Your task to perform on an android device: clear all cookies in the chrome app Image 0: 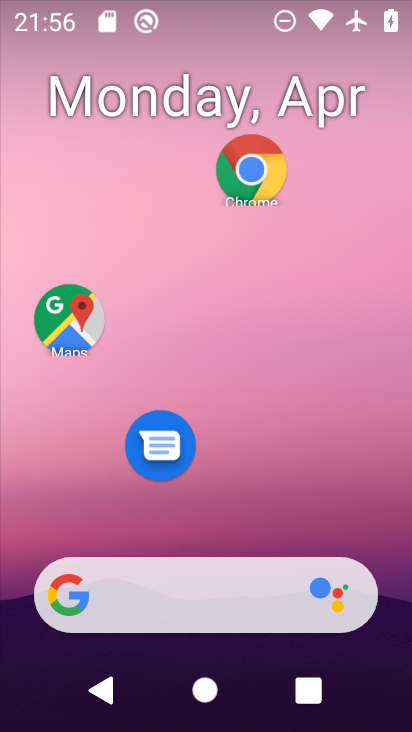
Step 0: click (259, 186)
Your task to perform on an android device: clear all cookies in the chrome app Image 1: 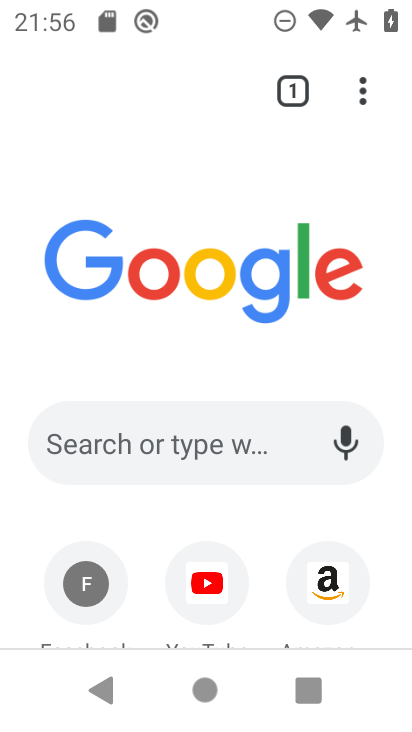
Step 1: click (365, 91)
Your task to perform on an android device: clear all cookies in the chrome app Image 2: 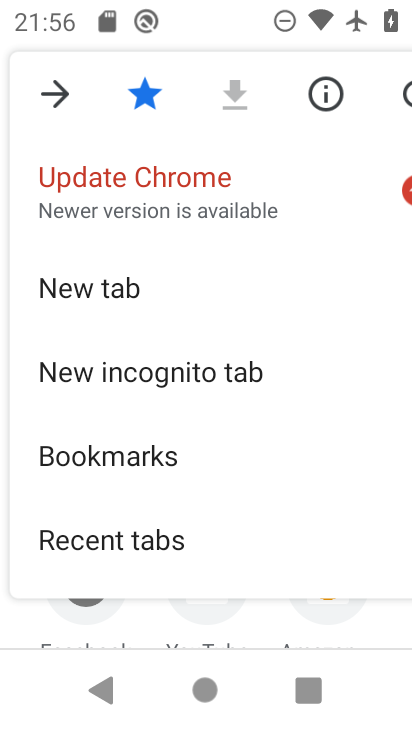
Step 2: drag from (189, 555) to (193, 291)
Your task to perform on an android device: clear all cookies in the chrome app Image 3: 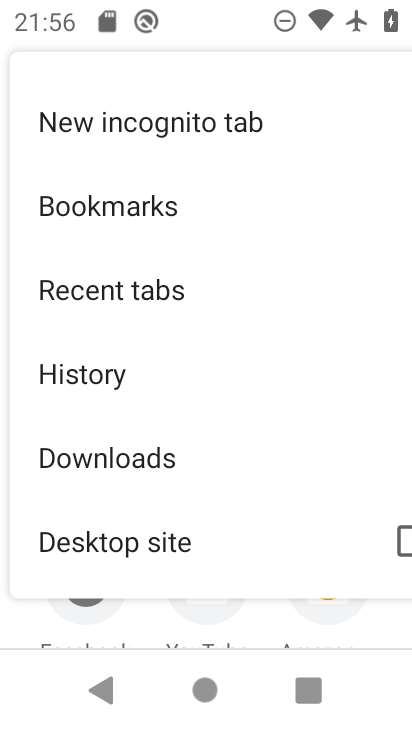
Step 3: drag from (182, 541) to (202, 221)
Your task to perform on an android device: clear all cookies in the chrome app Image 4: 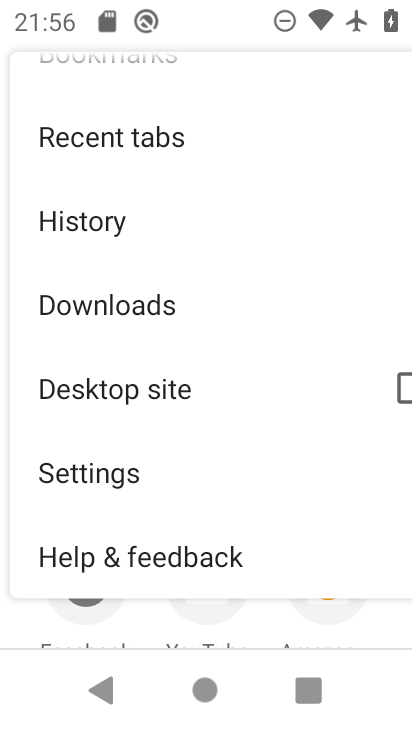
Step 4: click (157, 223)
Your task to perform on an android device: clear all cookies in the chrome app Image 5: 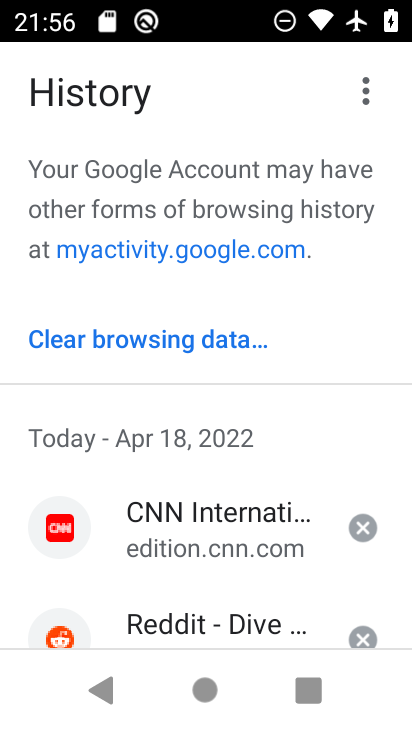
Step 5: click (176, 343)
Your task to perform on an android device: clear all cookies in the chrome app Image 6: 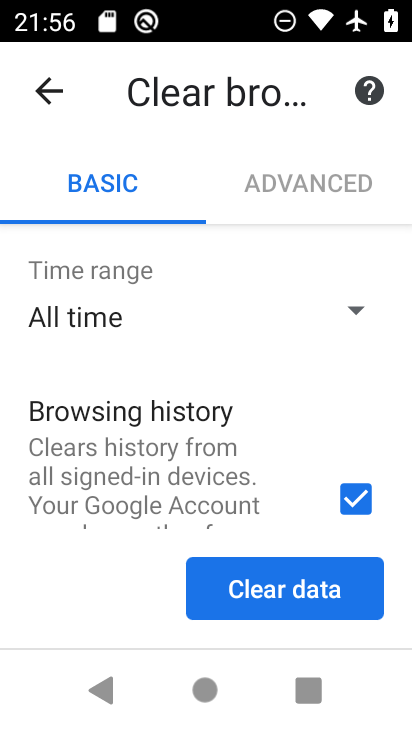
Step 6: click (286, 577)
Your task to perform on an android device: clear all cookies in the chrome app Image 7: 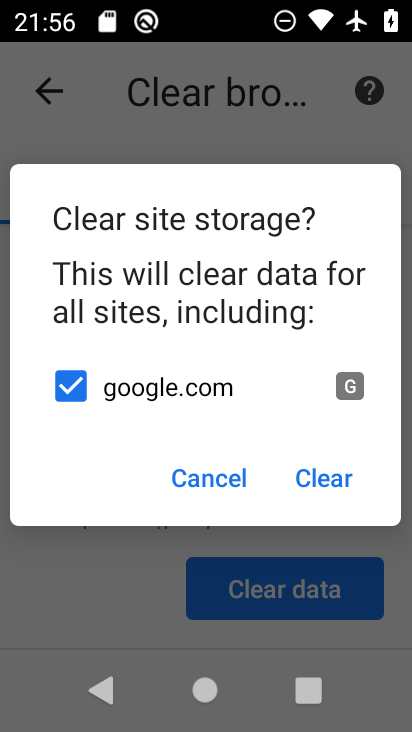
Step 7: click (316, 474)
Your task to perform on an android device: clear all cookies in the chrome app Image 8: 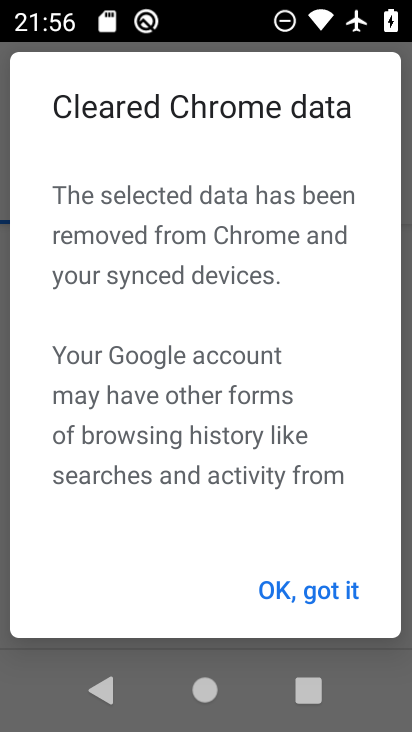
Step 8: click (314, 575)
Your task to perform on an android device: clear all cookies in the chrome app Image 9: 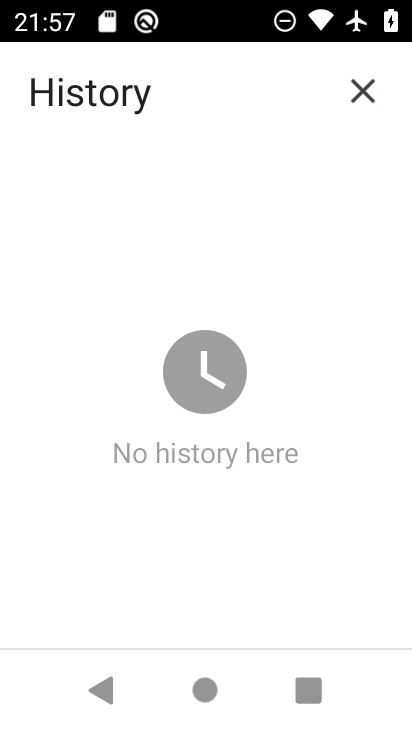
Step 9: task complete